Your task to perform on an android device: Go to Reddit.com Image 0: 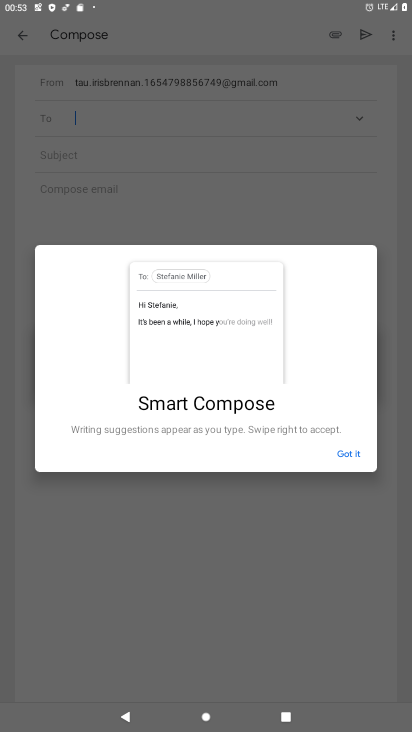
Step 0: press home button
Your task to perform on an android device: Go to Reddit.com Image 1: 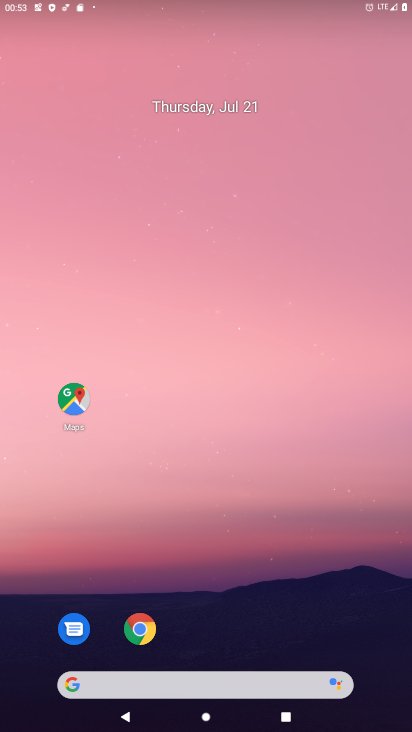
Step 1: drag from (310, 645) to (291, 156)
Your task to perform on an android device: Go to Reddit.com Image 2: 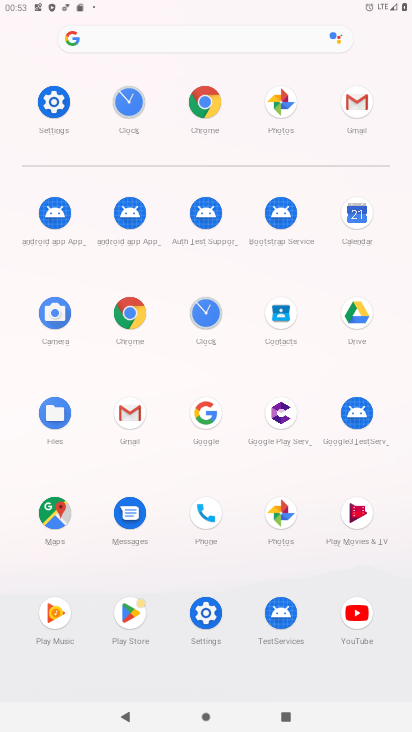
Step 2: click (208, 98)
Your task to perform on an android device: Go to Reddit.com Image 3: 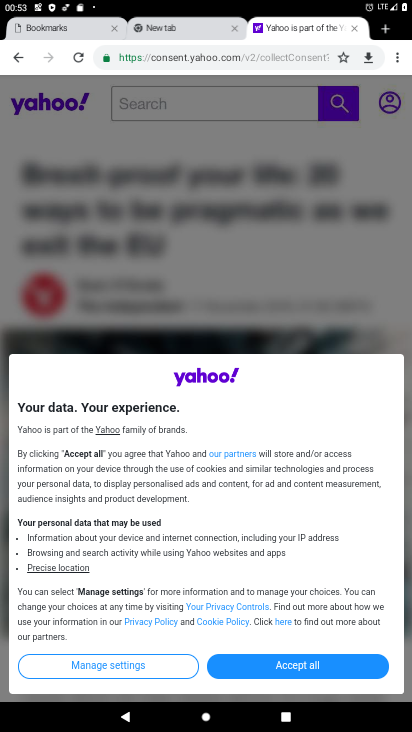
Step 3: click (263, 55)
Your task to perform on an android device: Go to Reddit.com Image 4: 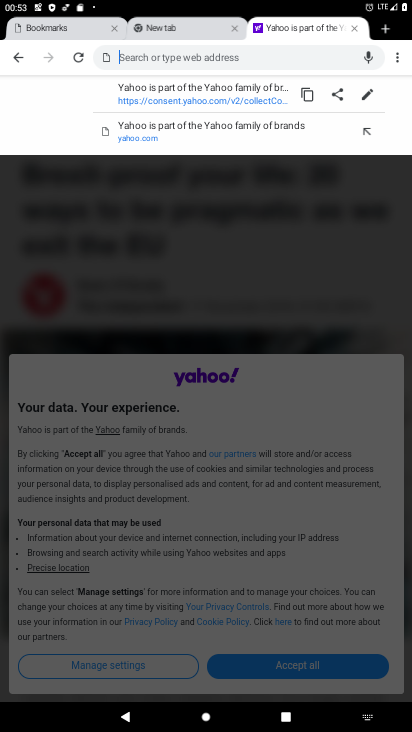
Step 4: type "reddit.com"
Your task to perform on an android device: Go to Reddit.com Image 5: 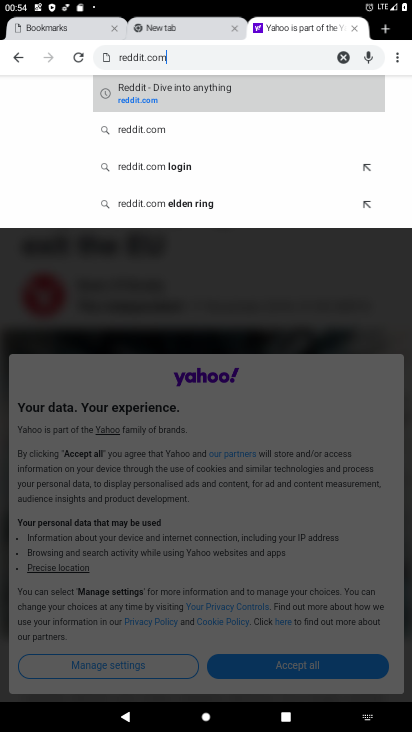
Step 5: click (157, 95)
Your task to perform on an android device: Go to Reddit.com Image 6: 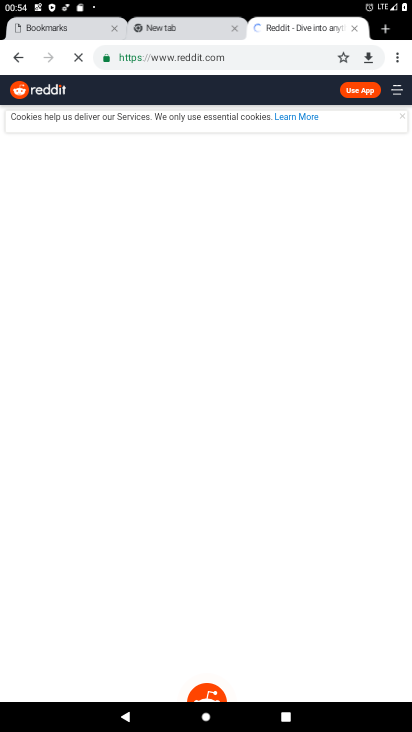
Step 6: task complete